Your task to perform on an android device: Check the weather Image 0: 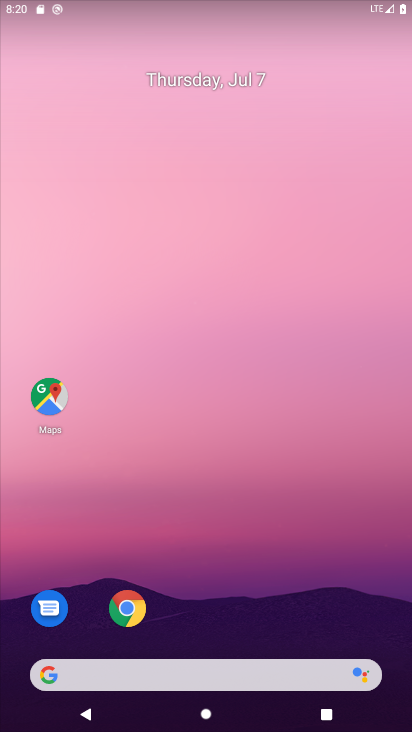
Step 0: click (239, 678)
Your task to perform on an android device: Check the weather Image 1: 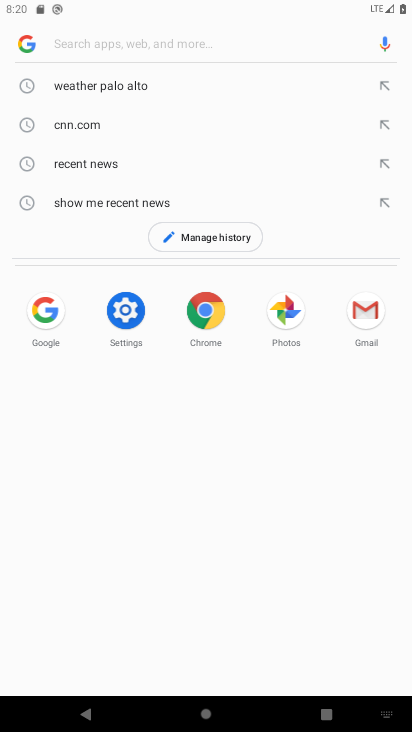
Step 1: type "weather"
Your task to perform on an android device: Check the weather Image 2: 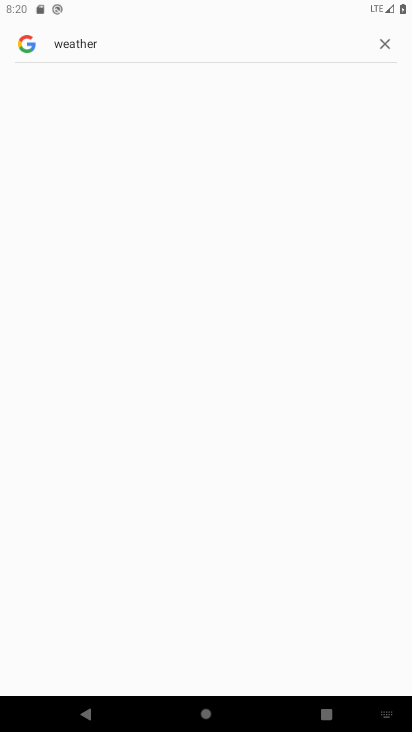
Step 2: task complete